Your task to perform on an android device: Play the last video I watched on Youtube Image 0: 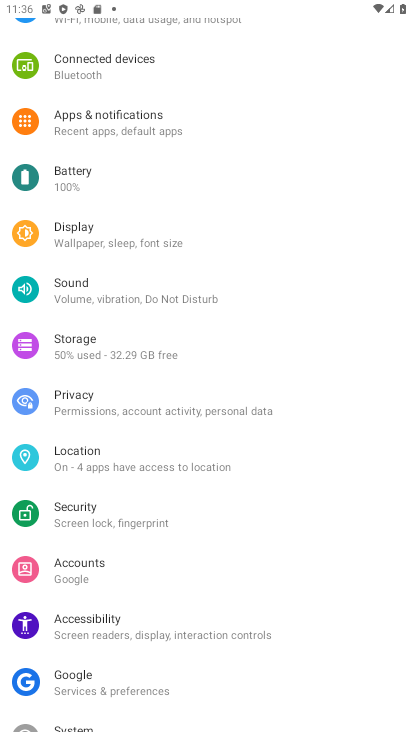
Step 0: press home button
Your task to perform on an android device: Play the last video I watched on Youtube Image 1: 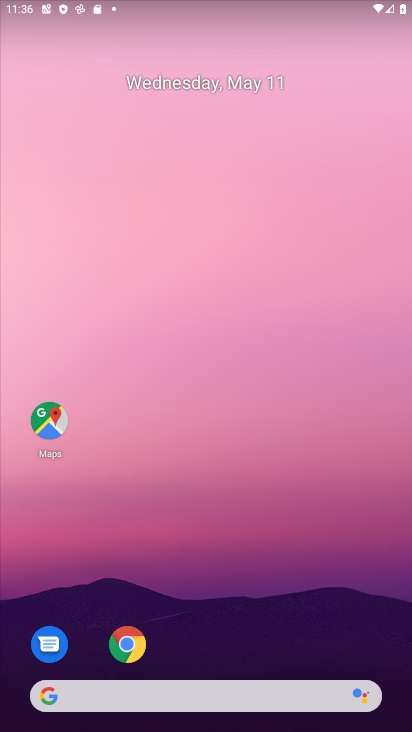
Step 1: drag from (225, 619) to (350, 11)
Your task to perform on an android device: Play the last video I watched on Youtube Image 2: 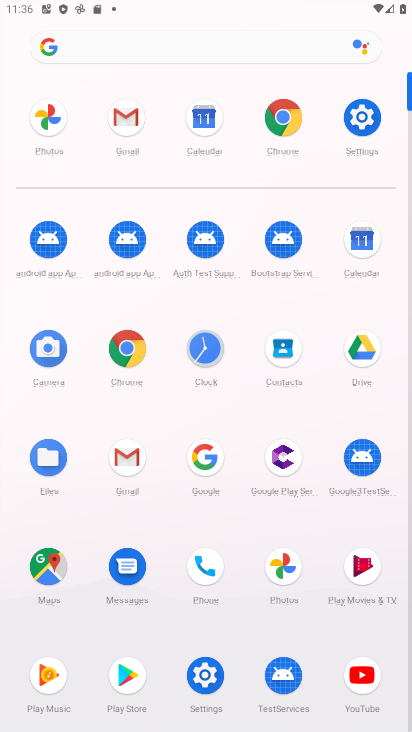
Step 2: click (372, 668)
Your task to perform on an android device: Play the last video I watched on Youtube Image 3: 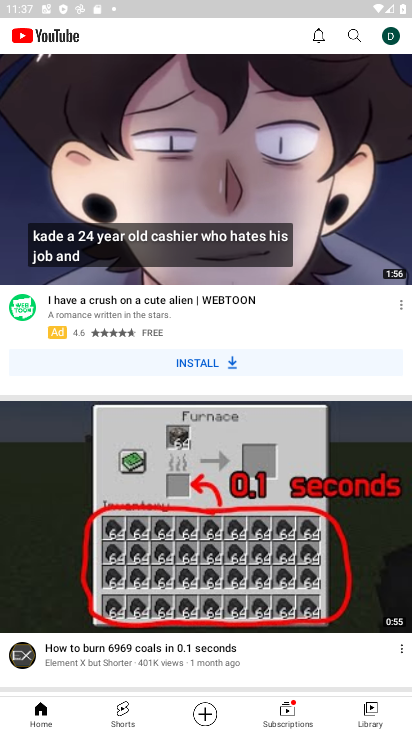
Step 3: click (376, 701)
Your task to perform on an android device: Play the last video I watched on Youtube Image 4: 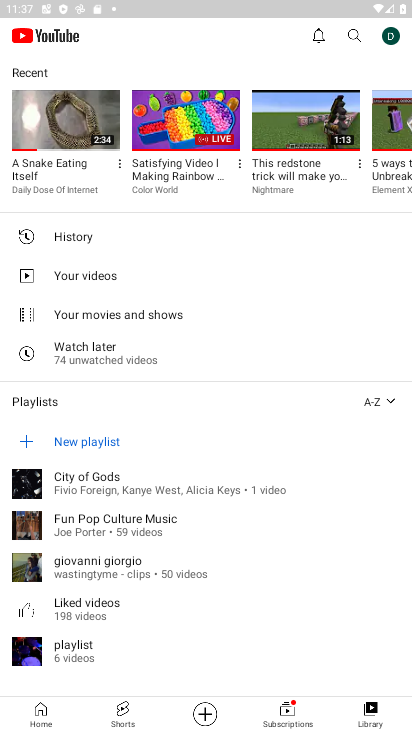
Step 4: task complete